Your task to perform on an android device: Go to eBay Image 0: 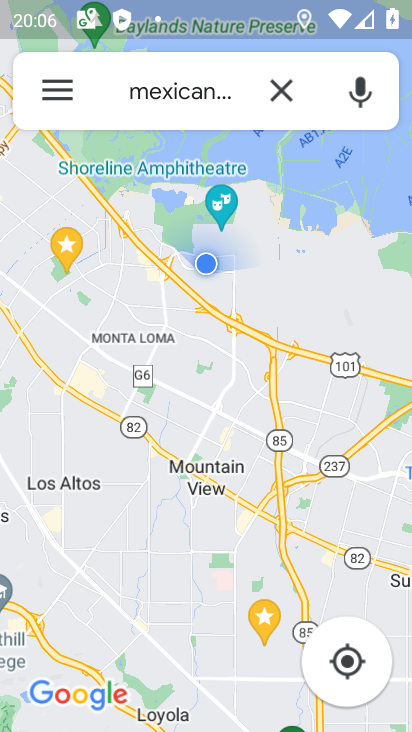
Step 0: press home button
Your task to perform on an android device: Go to eBay Image 1: 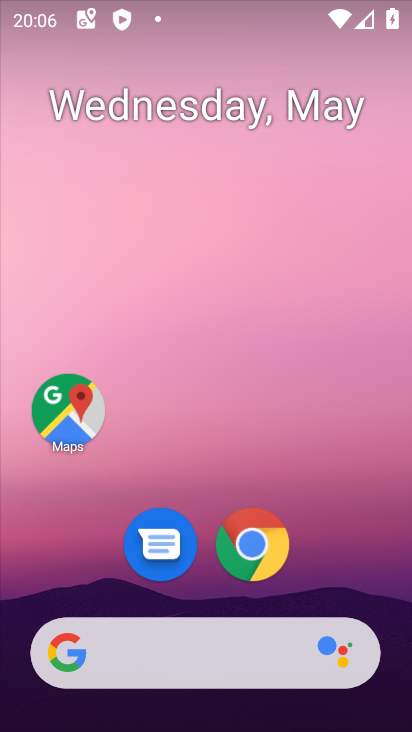
Step 1: click (189, 650)
Your task to perform on an android device: Go to eBay Image 2: 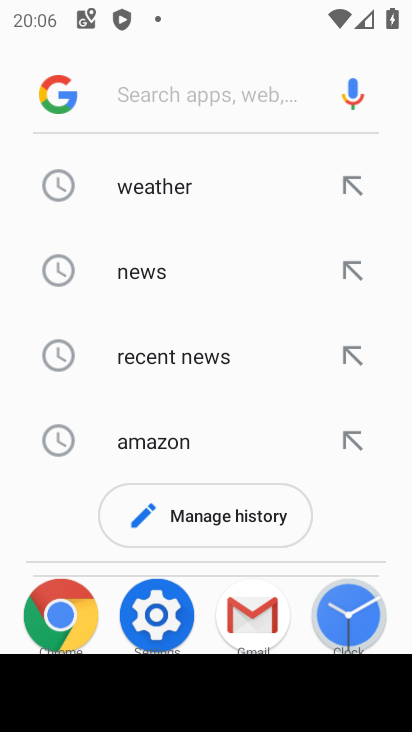
Step 2: type "ebay"
Your task to perform on an android device: Go to eBay Image 3: 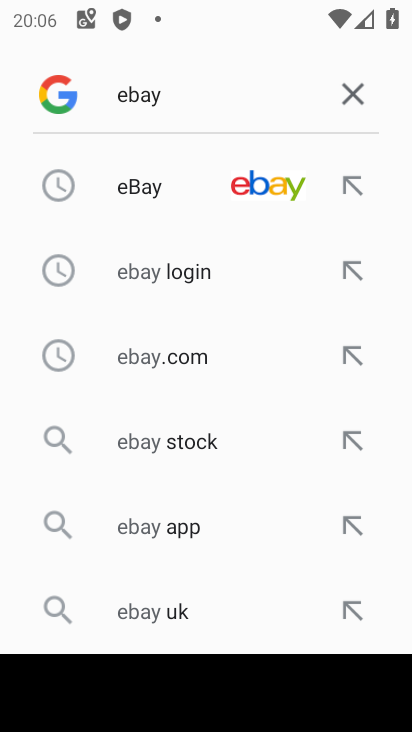
Step 3: click (143, 198)
Your task to perform on an android device: Go to eBay Image 4: 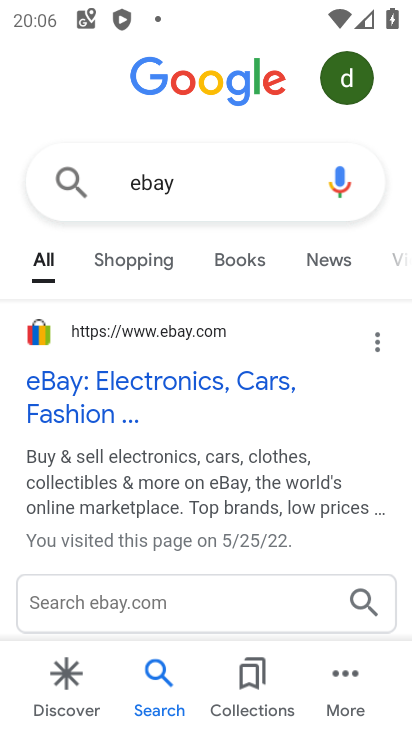
Step 4: click (95, 367)
Your task to perform on an android device: Go to eBay Image 5: 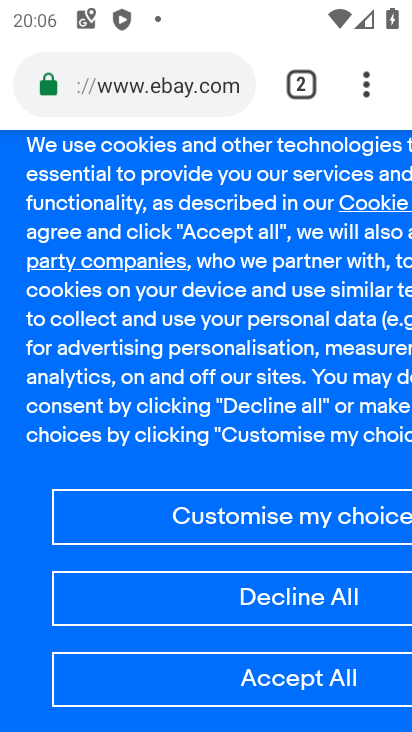
Step 5: task complete